Your task to perform on an android device: Open the stopwatch Image 0: 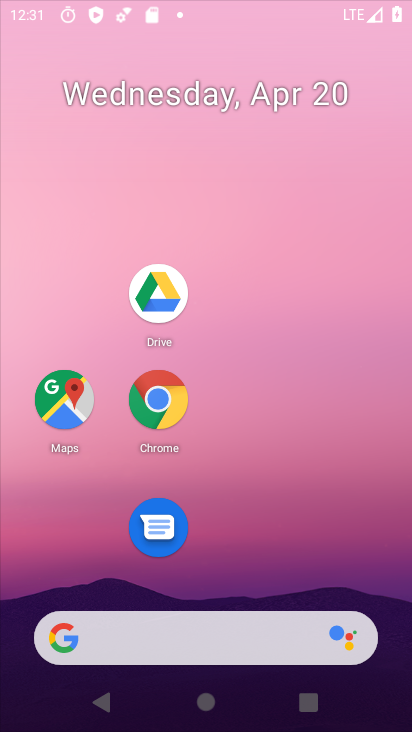
Step 0: click (291, 169)
Your task to perform on an android device: Open the stopwatch Image 1: 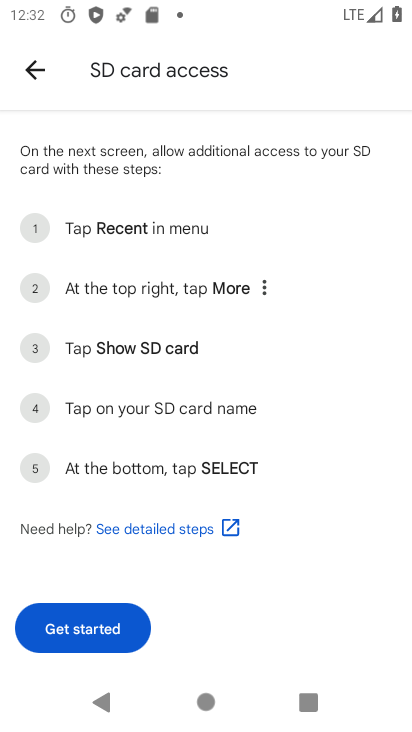
Step 1: press home button
Your task to perform on an android device: Open the stopwatch Image 2: 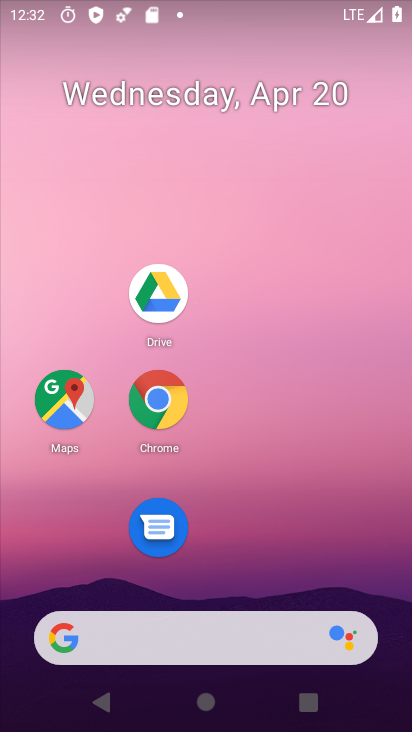
Step 2: drag from (247, 595) to (314, 238)
Your task to perform on an android device: Open the stopwatch Image 3: 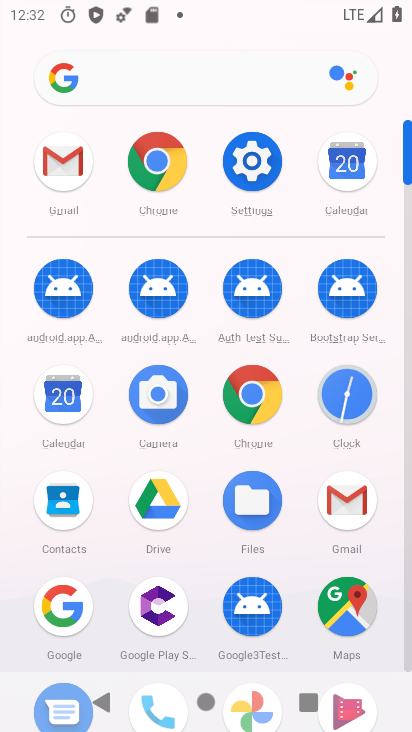
Step 3: click (341, 410)
Your task to perform on an android device: Open the stopwatch Image 4: 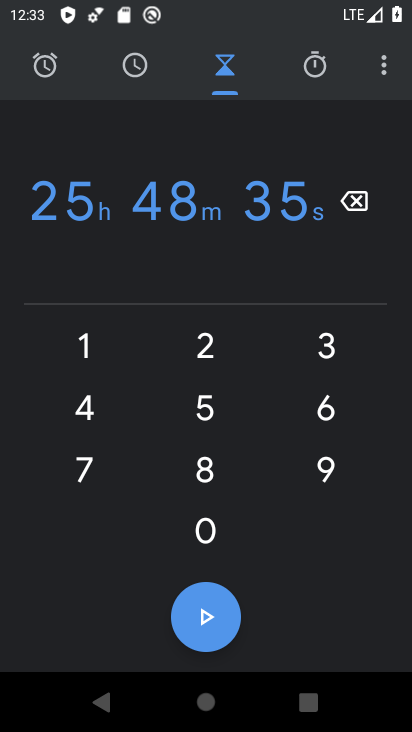
Step 4: click (310, 70)
Your task to perform on an android device: Open the stopwatch Image 5: 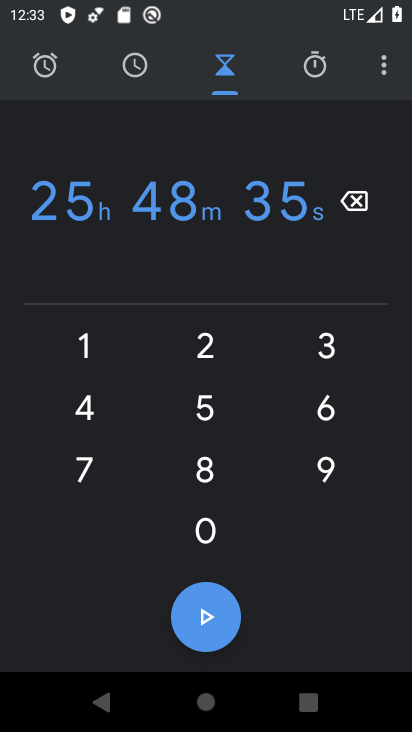
Step 5: click (334, 88)
Your task to perform on an android device: Open the stopwatch Image 6: 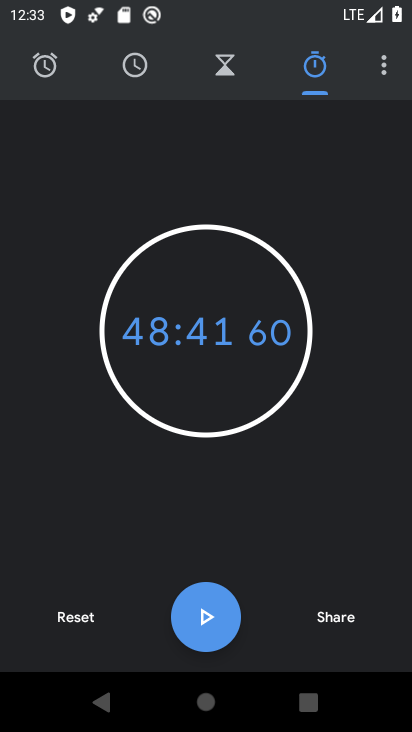
Step 6: click (204, 620)
Your task to perform on an android device: Open the stopwatch Image 7: 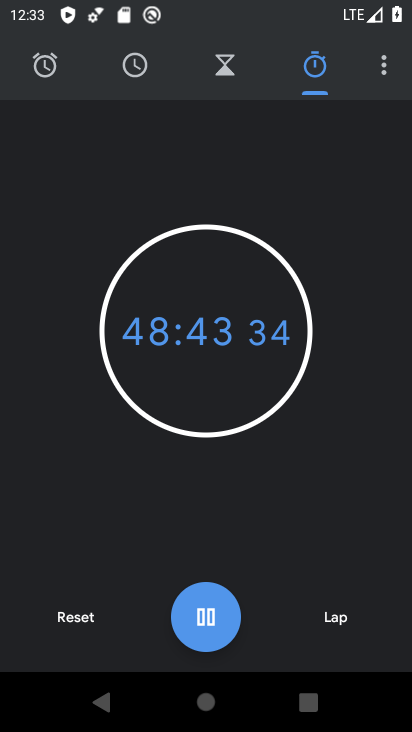
Step 7: click (204, 620)
Your task to perform on an android device: Open the stopwatch Image 8: 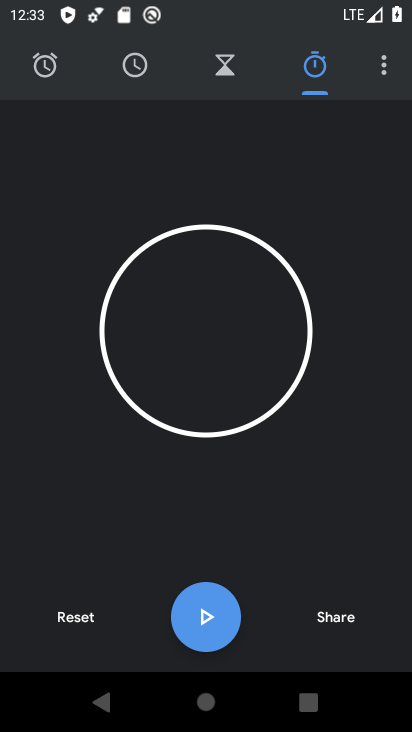
Step 8: task complete